Your task to perform on an android device: Open the Play Movies app and select the watchlist tab. Image 0: 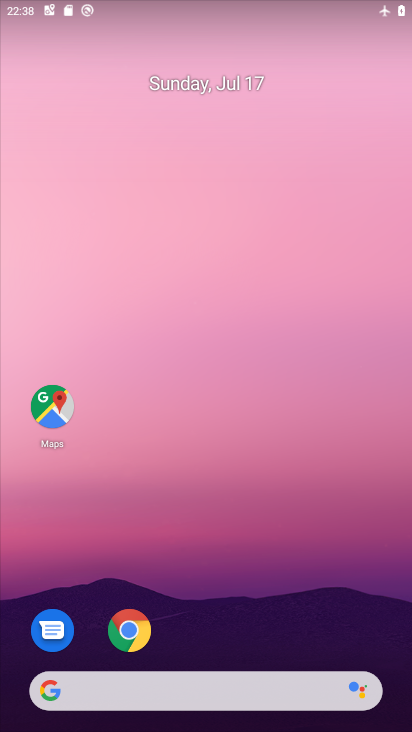
Step 0: drag from (208, 649) to (216, 133)
Your task to perform on an android device: Open the Play Movies app and select the watchlist tab. Image 1: 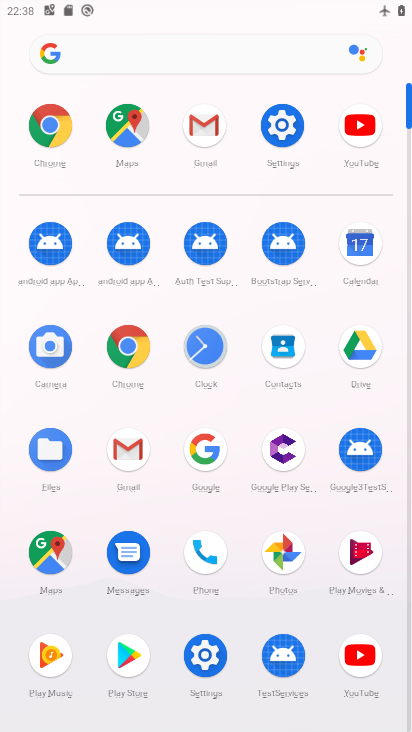
Step 1: click (349, 565)
Your task to perform on an android device: Open the Play Movies app and select the watchlist tab. Image 2: 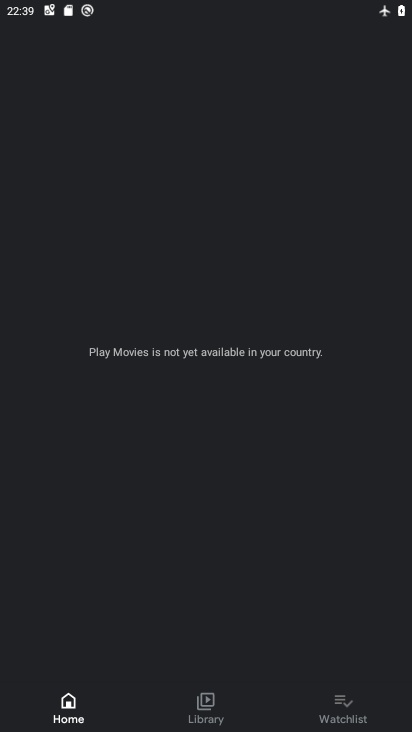
Step 2: click (348, 717)
Your task to perform on an android device: Open the Play Movies app and select the watchlist tab. Image 3: 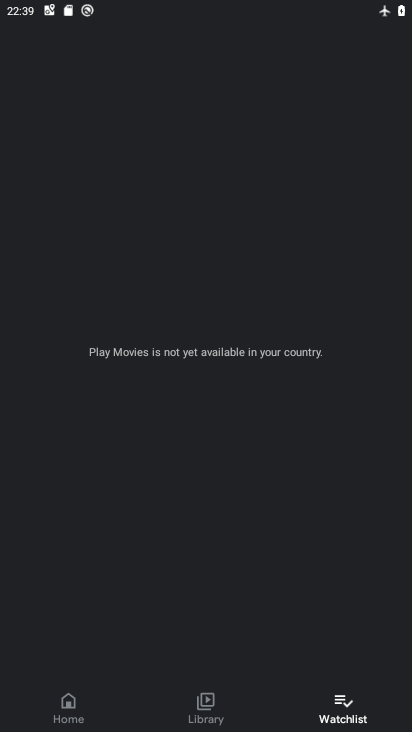
Step 3: task complete